Your task to perform on an android device: Go to Reddit.com Image 0: 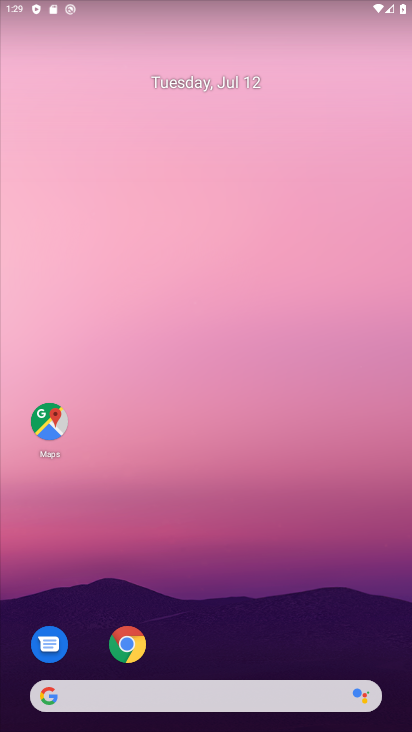
Step 0: click (121, 654)
Your task to perform on an android device: Go to Reddit.com Image 1: 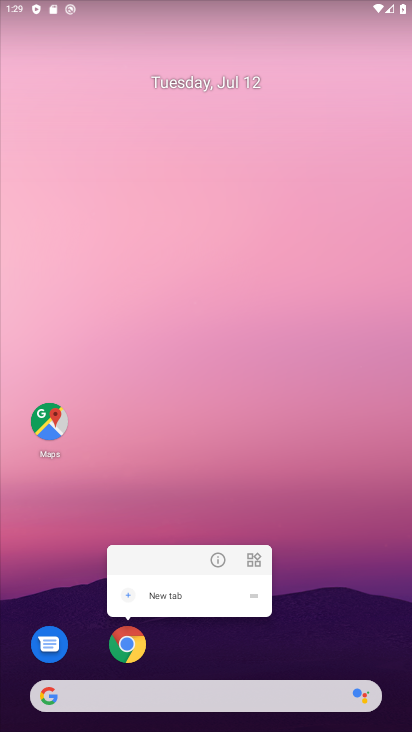
Step 1: click (125, 646)
Your task to perform on an android device: Go to Reddit.com Image 2: 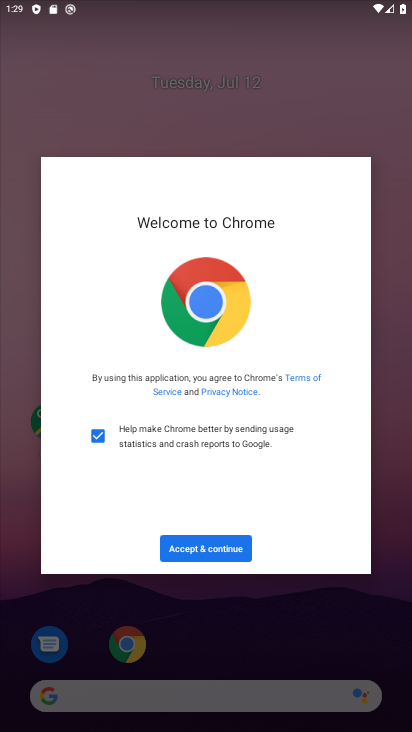
Step 2: click (221, 547)
Your task to perform on an android device: Go to Reddit.com Image 3: 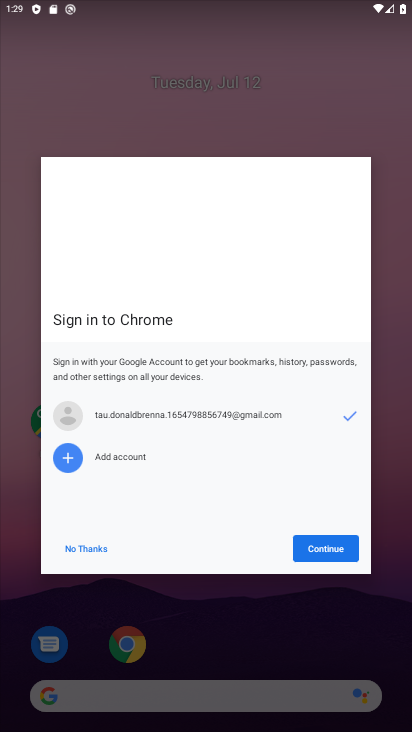
Step 3: click (343, 555)
Your task to perform on an android device: Go to Reddit.com Image 4: 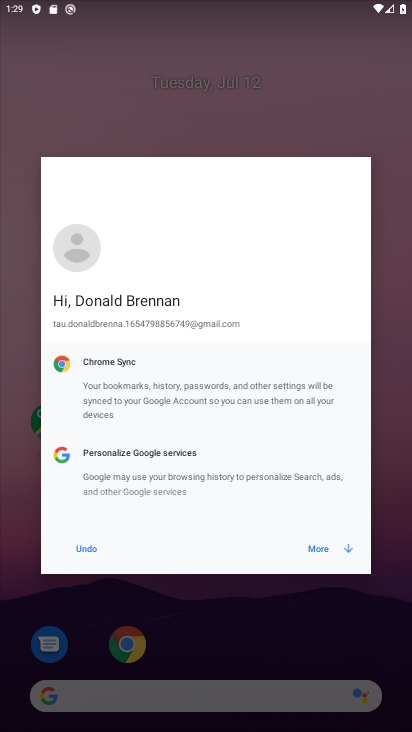
Step 4: click (335, 560)
Your task to perform on an android device: Go to Reddit.com Image 5: 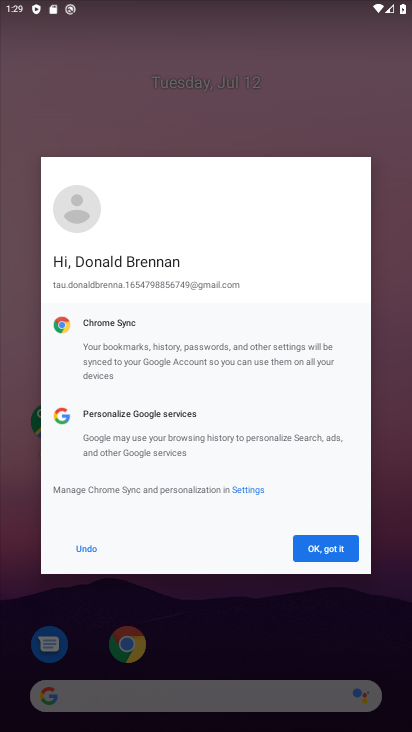
Step 5: click (334, 559)
Your task to perform on an android device: Go to Reddit.com Image 6: 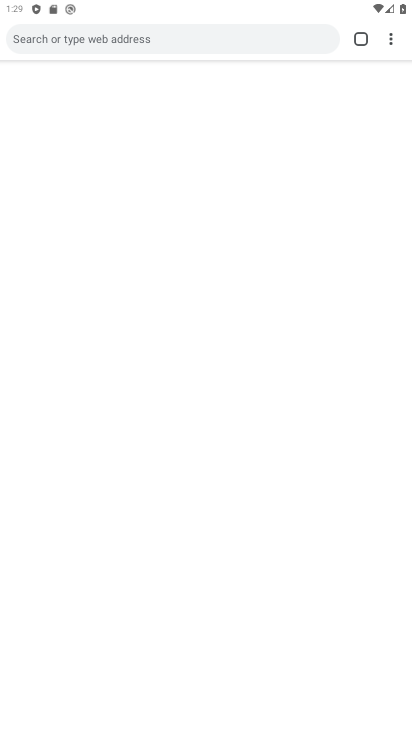
Step 6: click (94, 41)
Your task to perform on an android device: Go to Reddit.com Image 7: 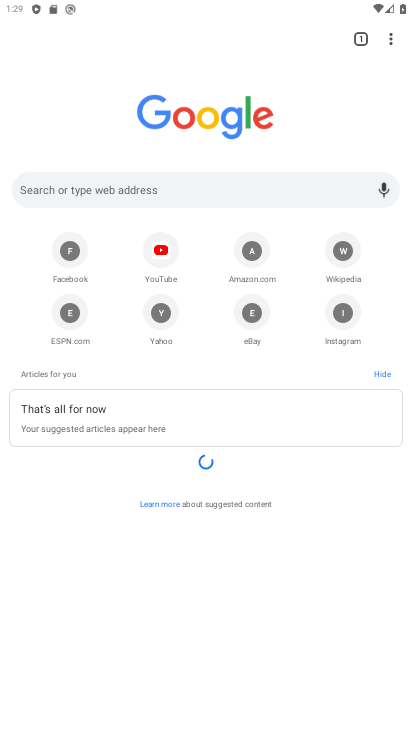
Step 7: click (193, 193)
Your task to perform on an android device: Go to Reddit.com Image 8: 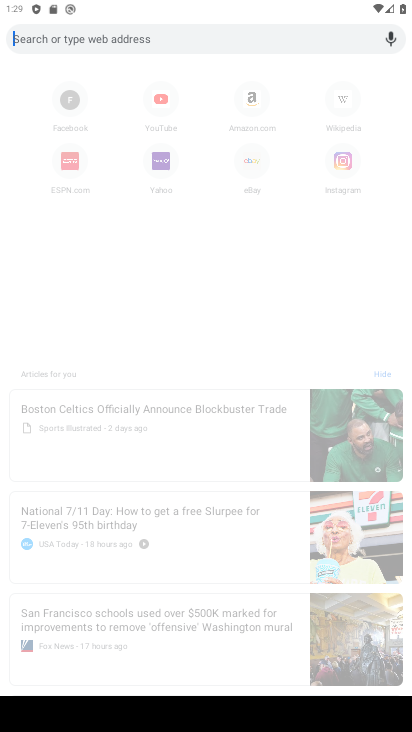
Step 8: type " Reddit.com"
Your task to perform on an android device: Go to Reddit.com Image 9: 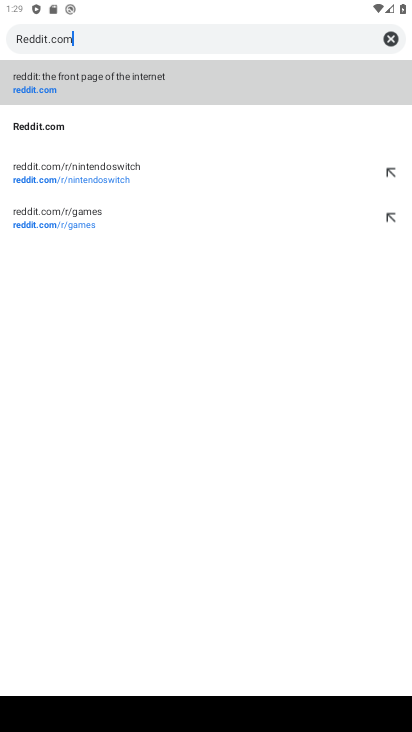
Step 9: type ""
Your task to perform on an android device: Go to Reddit.com Image 10: 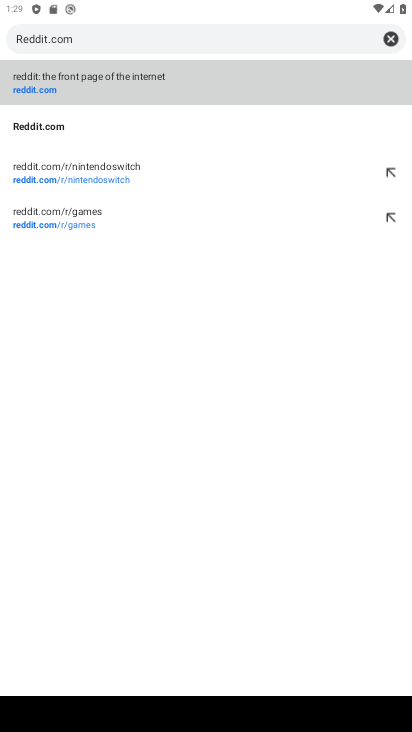
Step 10: click (130, 97)
Your task to perform on an android device: Go to Reddit.com Image 11: 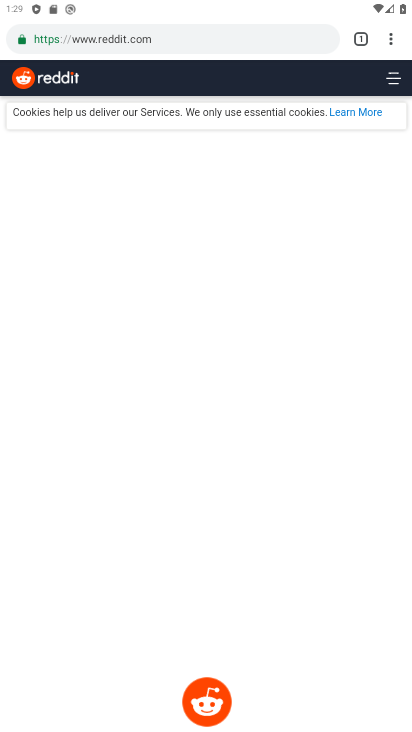
Step 11: task complete